Your task to perform on an android device: Go to Wikipedia Image 0: 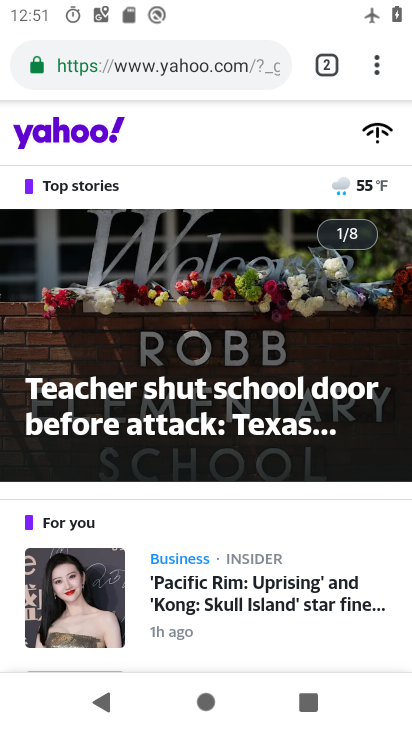
Step 0: click (144, 54)
Your task to perform on an android device: Go to Wikipedia Image 1: 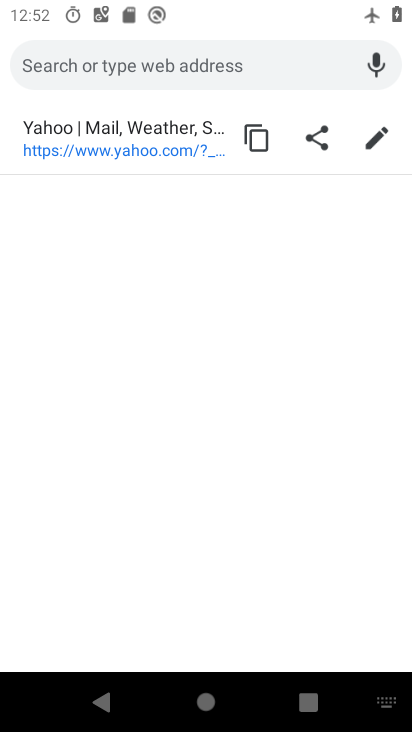
Step 1: type "wikipedia"
Your task to perform on an android device: Go to Wikipedia Image 2: 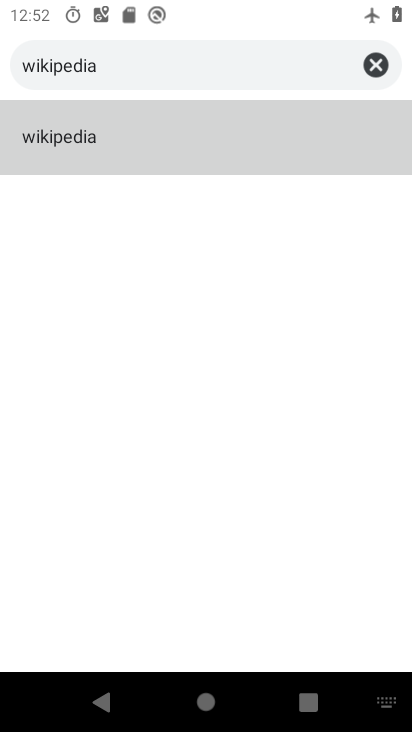
Step 2: click (79, 138)
Your task to perform on an android device: Go to Wikipedia Image 3: 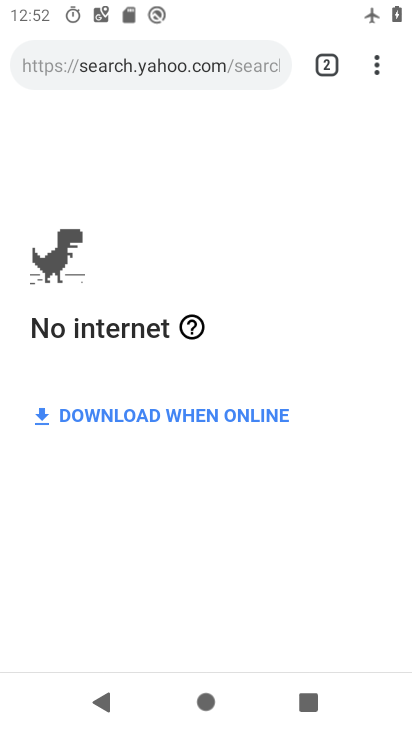
Step 3: task complete